Your task to perform on an android device: Search for sushi restaurants on Maps Image 0: 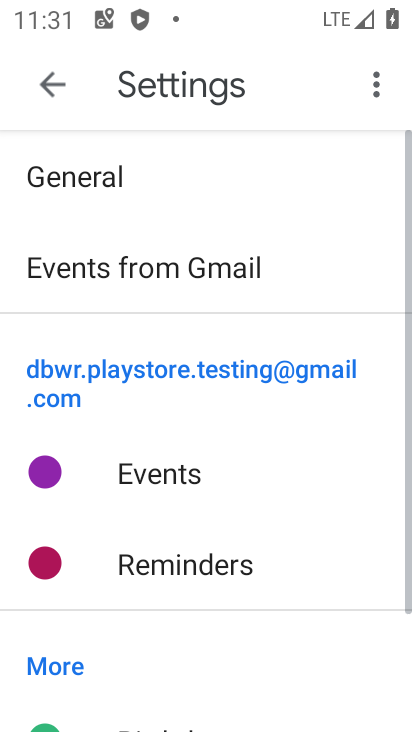
Step 0: press home button
Your task to perform on an android device: Search for sushi restaurants on Maps Image 1: 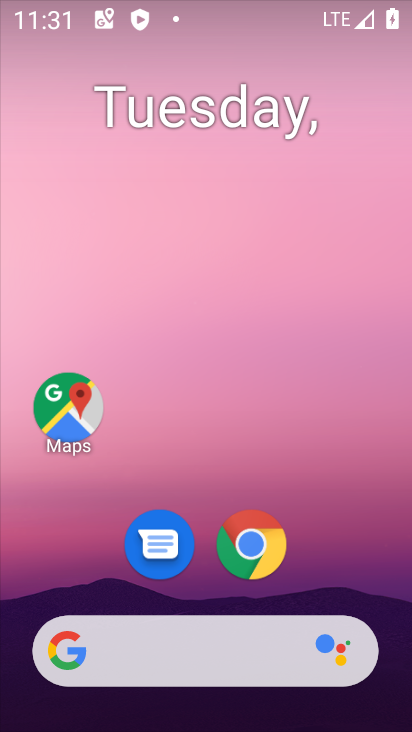
Step 1: drag from (385, 622) to (309, 55)
Your task to perform on an android device: Search for sushi restaurants on Maps Image 2: 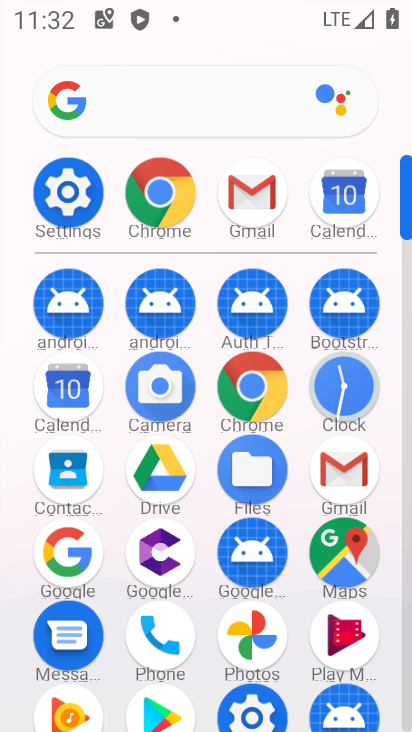
Step 2: click (354, 567)
Your task to perform on an android device: Search for sushi restaurants on Maps Image 3: 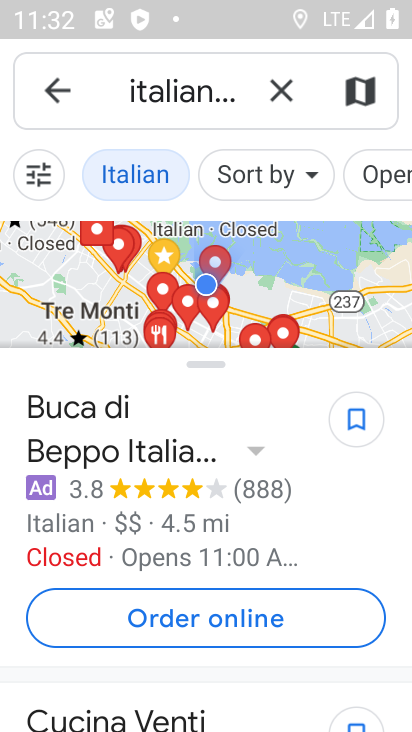
Step 3: click (291, 91)
Your task to perform on an android device: Search for sushi restaurants on Maps Image 4: 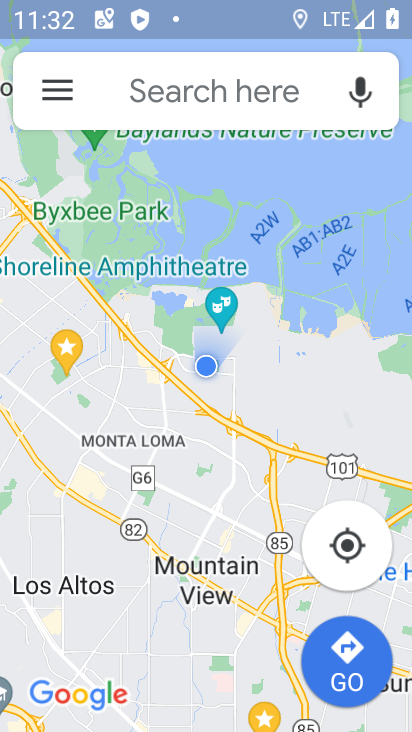
Step 4: click (220, 98)
Your task to perform on an android device: Search for sushi restaurants on Maps Image 5: 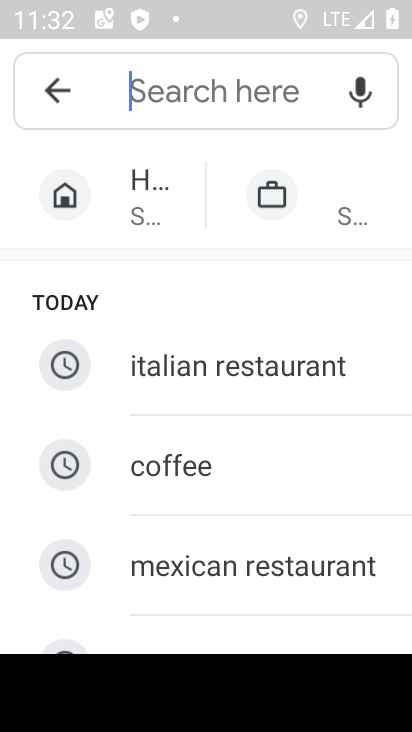
Step 5: drag from (189, 600) to (219, 257)
Your task to perform on an android device: Search for sushi restaurants on Maps Image 6: 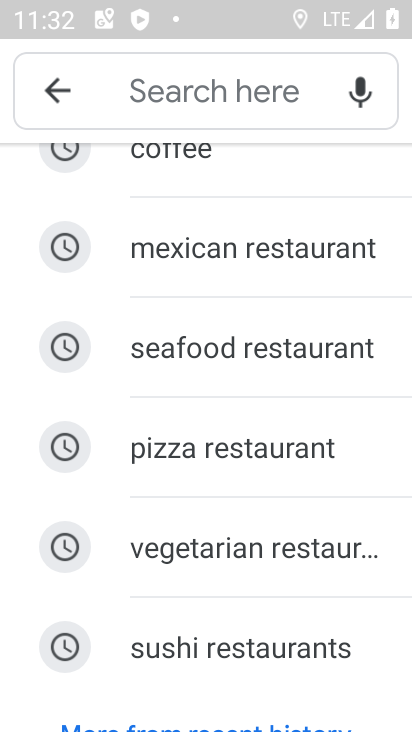
Step 6: click (208, 645)
Your task to perform on an android device: Search for sushi restaurants on Maps Image 7: 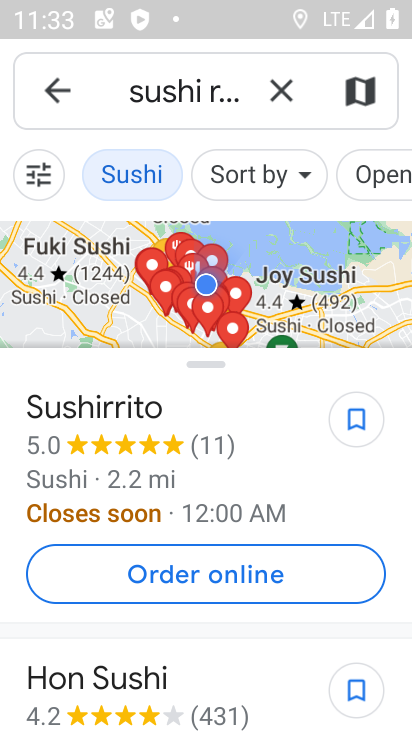
Step 7: task complete